Your task to perform on an android device: turn on notifications settings in the gmail app Image 0: 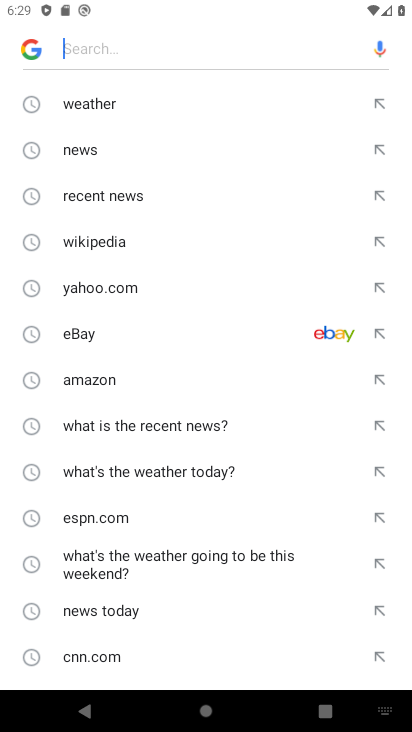
Step 0: press home button
Your task to perform on an android device: turn on notifications settings in the gmail app Image 1: 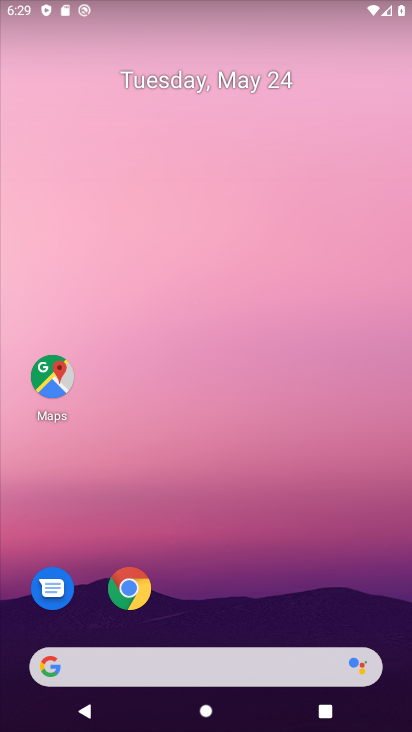
Step 1: drag from (277, 626) to (355, 126)
Your task to perform on an android device: turn on notifications settings in the gmail app Image 2: 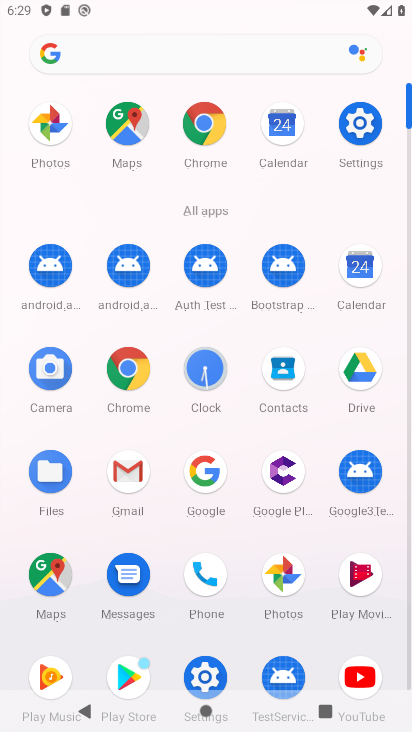
Step 2: click (128, 467)
Your task to perform on an android device: turn on notifications settings in the gmail app Image 3: 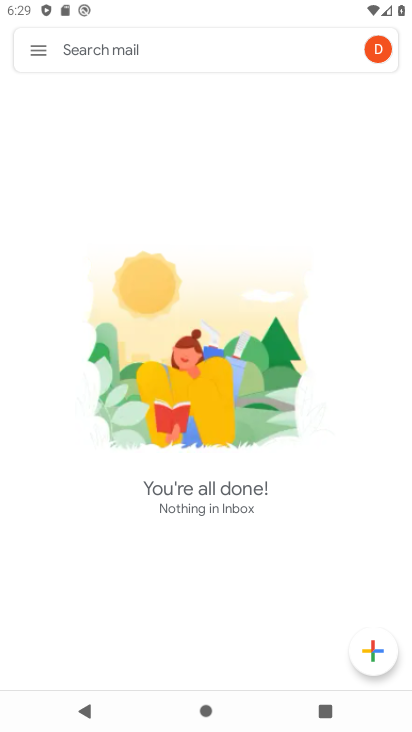
Step 3: click (28, 50)
Your task to perform on an android device: turn on notifications settings in the gmail app Image 4: 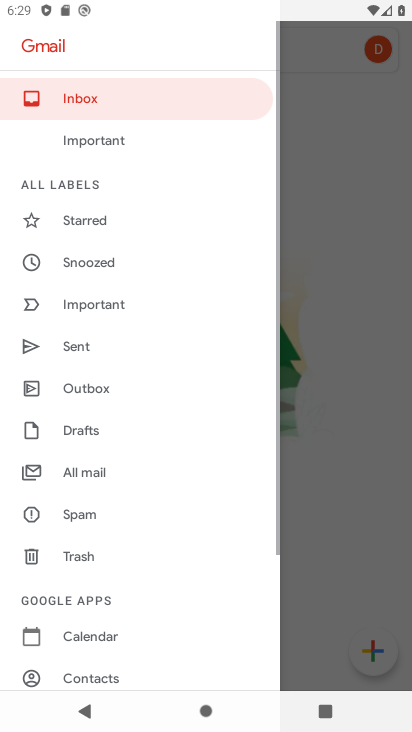
Step 4: drag from (148, 645) to (251, 164)
Your task to perform on an android device: turn on notifications settings in the gmail app Image 5: 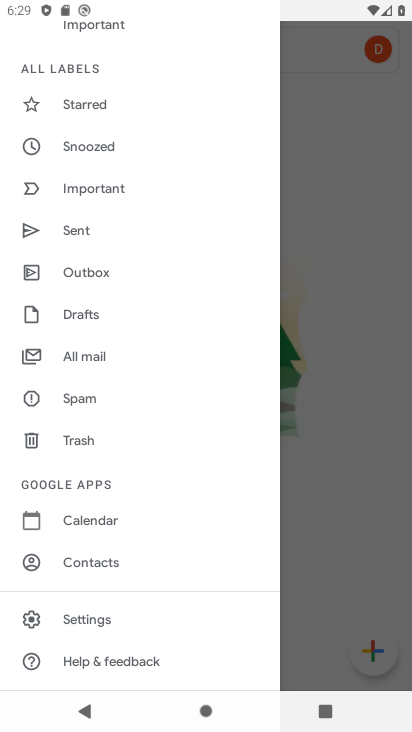
Step 5: click (106, 611)
Your task to perform on an android device: turn on notifications settings in the gmail app Image 6: 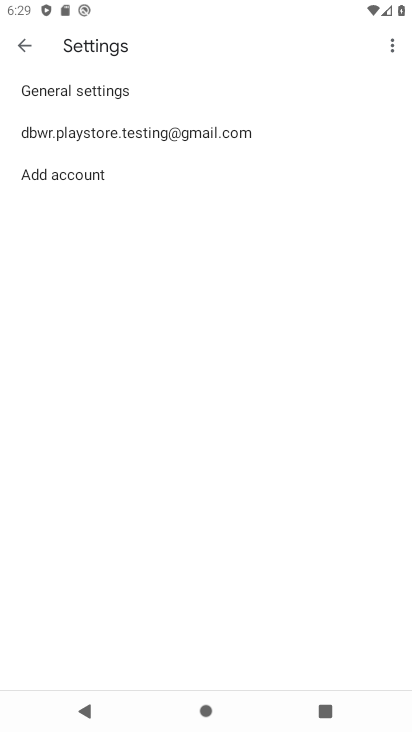
Step 6: click (146, 129)
Your task to perform on an android device: turn on notifications settings in the gmail app Image 7: 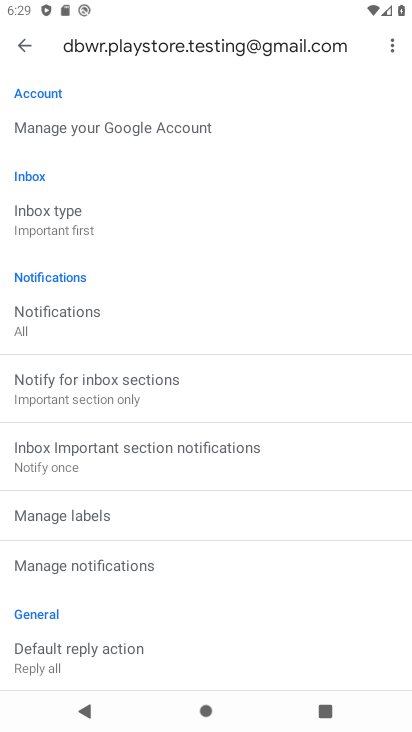
Step 7: click (123, 567)
Your task to perform on an android device: turn on notifications settings in the gmail app Image 8: 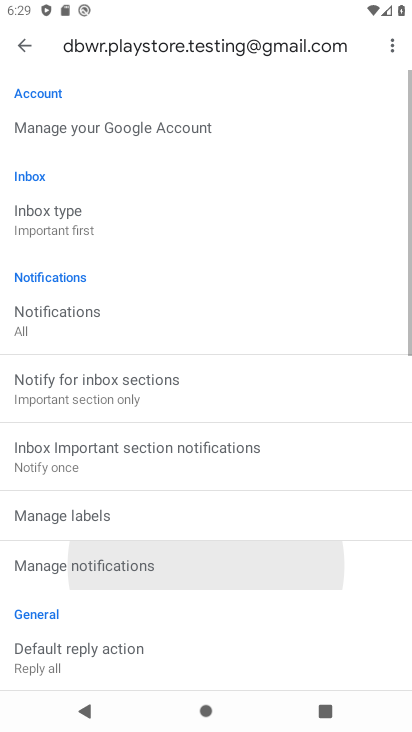
Step 8: click (123, 567)
Your task to perform on an android device: turn on notifications settings in the gmail app Image 9: 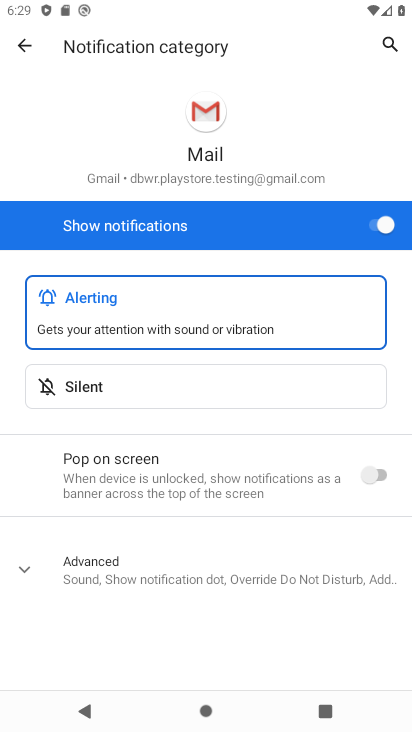
Step 9: task complete